Your task to perform on an android device: Open Youtube and go to "Your channel" Image 0: 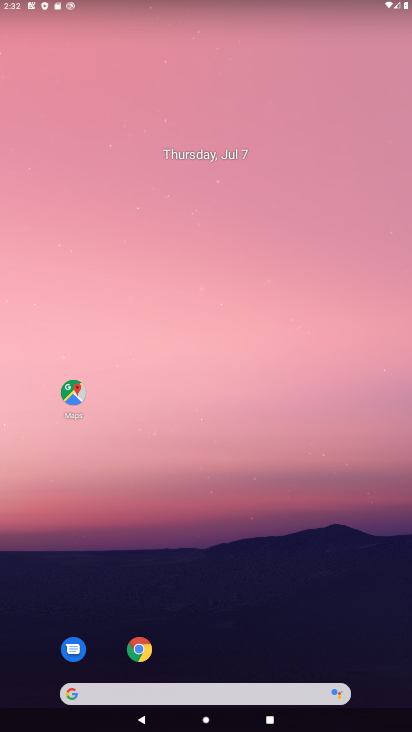
Step 0: click (348, 71)
Your task to perform on an android device: Open Youtube and go to "Your channel" Image 1: 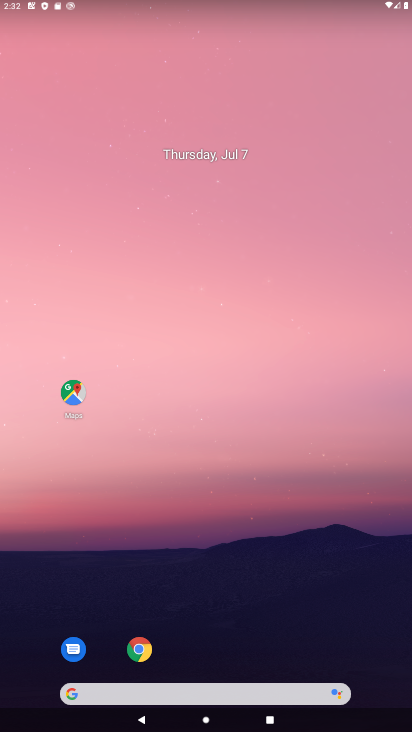
Step 1: drag from (283, 684) to (279, 23)
Your task to perform on an android device: Open Youtube and go to "Your channel" Image 2: 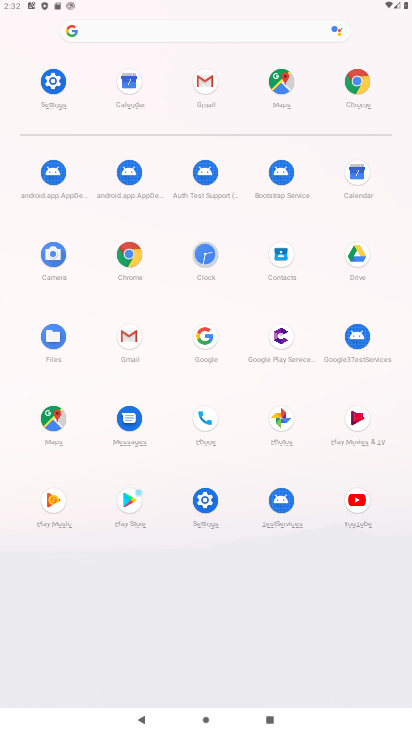
Step 2: click (358, 510)
Your task to perform on an android device: Open Youtube and go to "Your channel" Image 3: 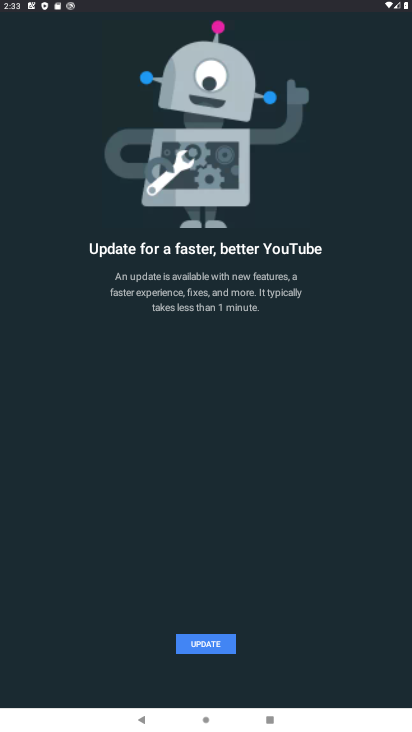
Step 3: click (218, 644)
Your task to perform on an android device: Open Youtube and go to "Your channel" Image 4: 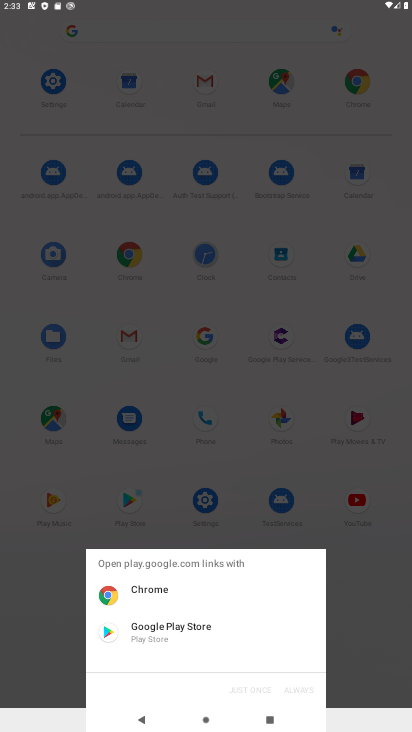
Step 4: click (204, 630)
Your task to perform on an android device: Open Youtube and go to "Your channel" Image 5: 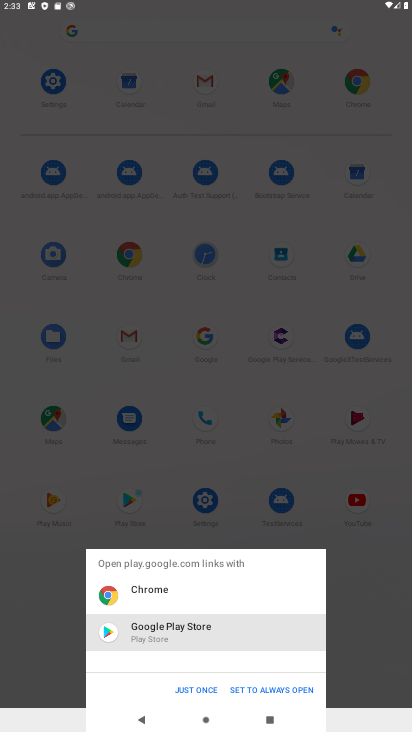
Step 5: click (203, 686)
Your task to perform on an android device: Open Youtube and go to "Your channel" Image 6: 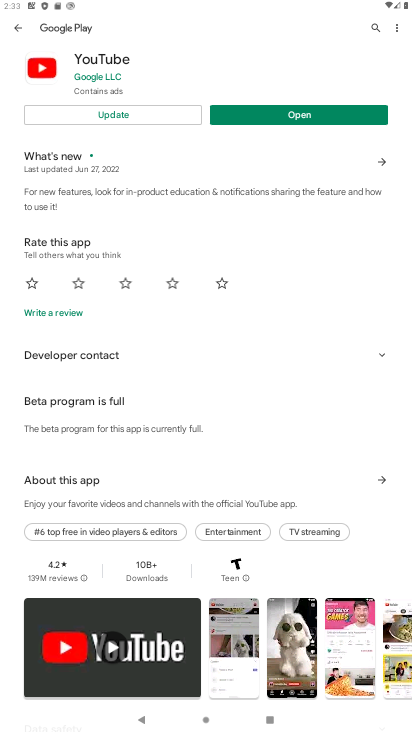
Step 6: click (170, 117)
Your task to perform on an android device: Open Youtube and go to "Your channel" Image 7: 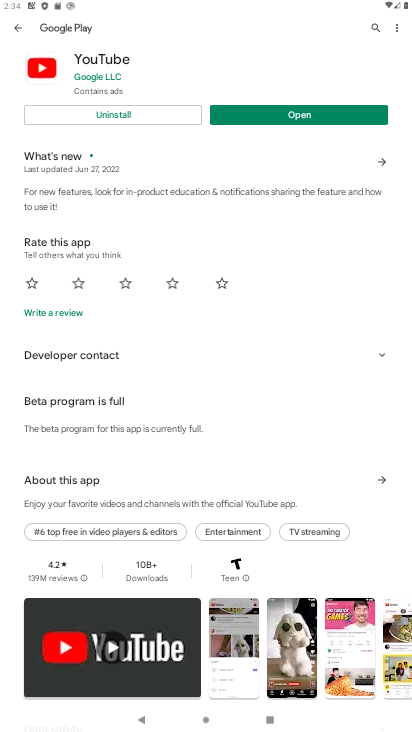
Step 7: click (266, 124)
Your task to perform on an android device: Open Youtube and go to "Your channel" Image 8: 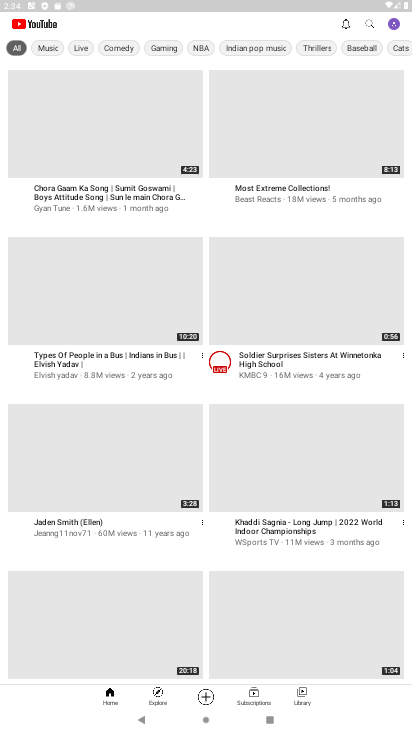
Step 8: click (397, 26)
Your task to perform on an android device: Open Youtube and go to "Your channel" Image 9: 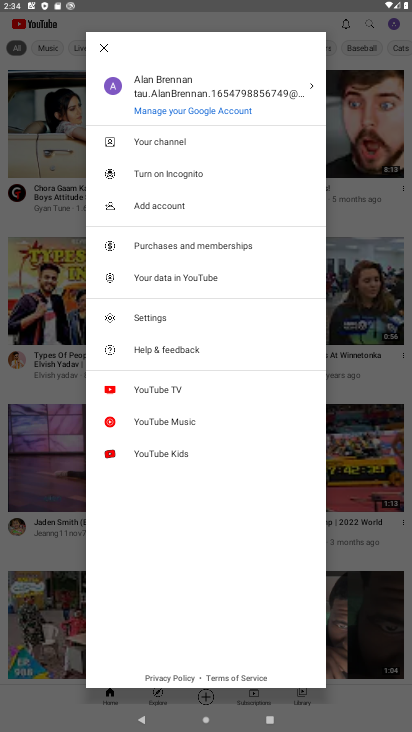
Step 9: click (174, 146)
Your task to perform on an android device: Open Youtube and go to "Your channel" Image 10: 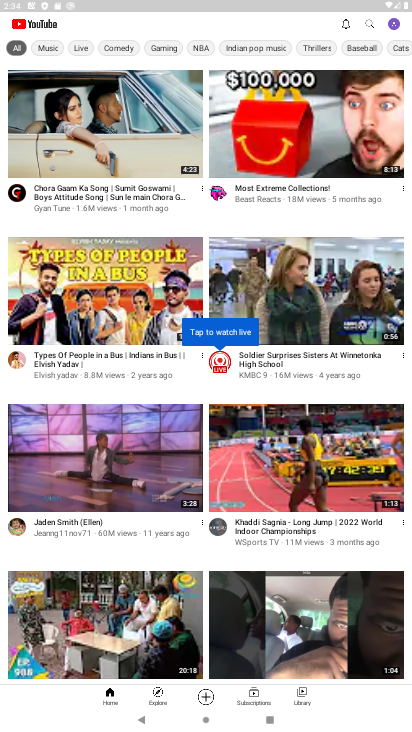
Step 10: task complete